Your task to perform on an android device: Open internet settings Image 0: 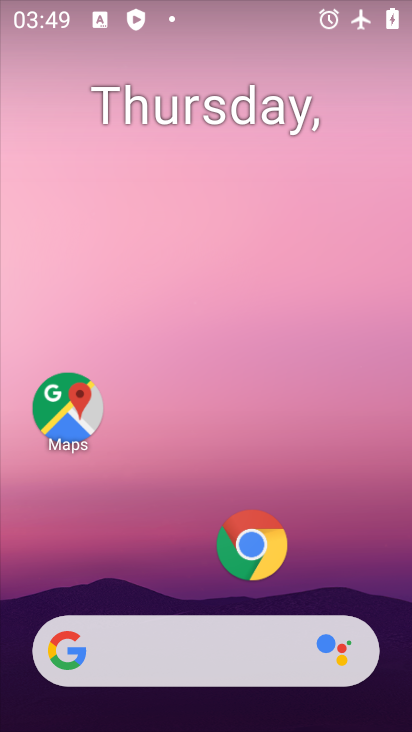
Step 0: drag from (228, 7) to (244, 638)
Your task to perform on an android device: Open internet settings Image 1: 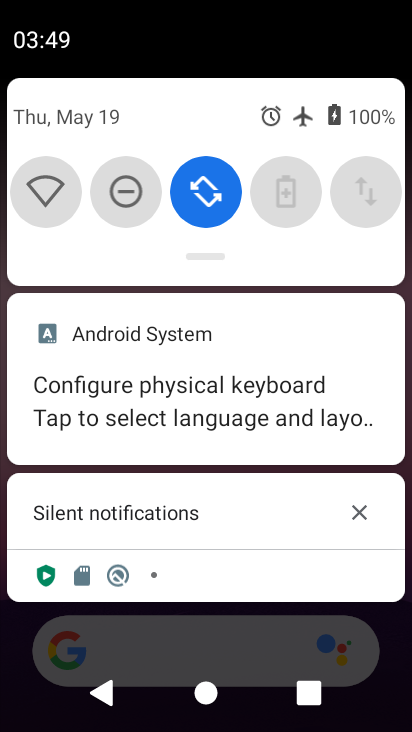
Step 1: drag from (307, 230) to (345, 575)
Your task to perform on an android device: Open internet settings Image 2: 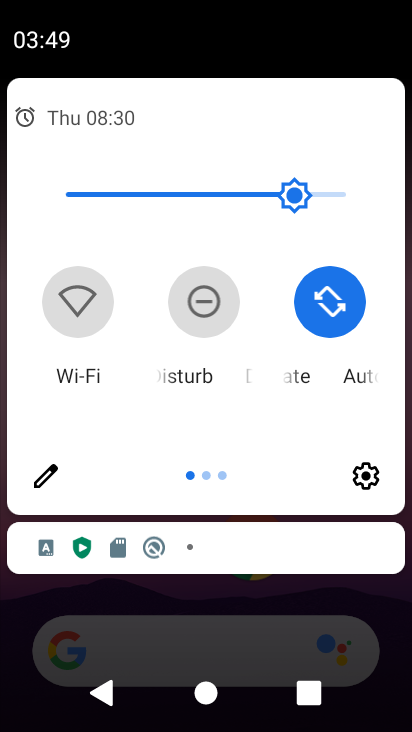
Step 2: drag from (365, 379) to (45, 402)
Your task to perform on an android device: Open internet settings Image 3: 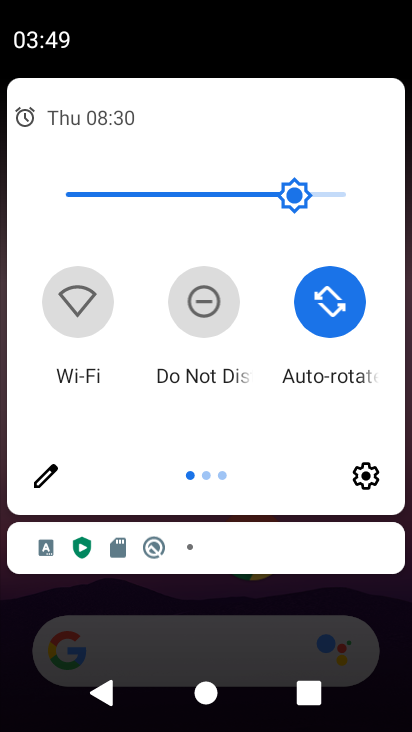
Step 3: drag from (311, 422) to (13, 438)
Your task to perform on an android device: Open internet settings Image 4: 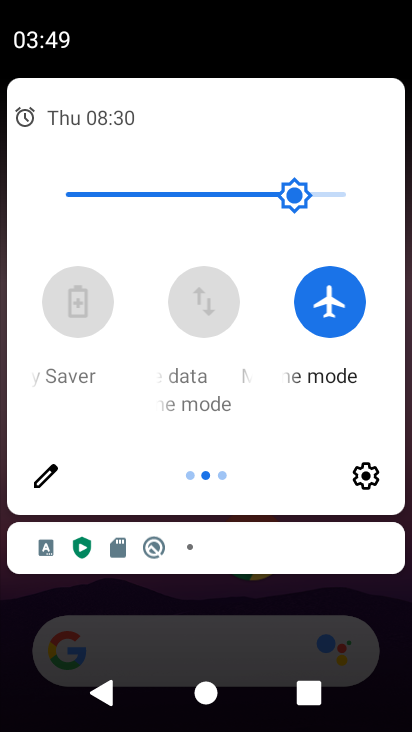
Step 4: click (332, 319)
Your task to perform on an android device: Open internet settings Image 5: 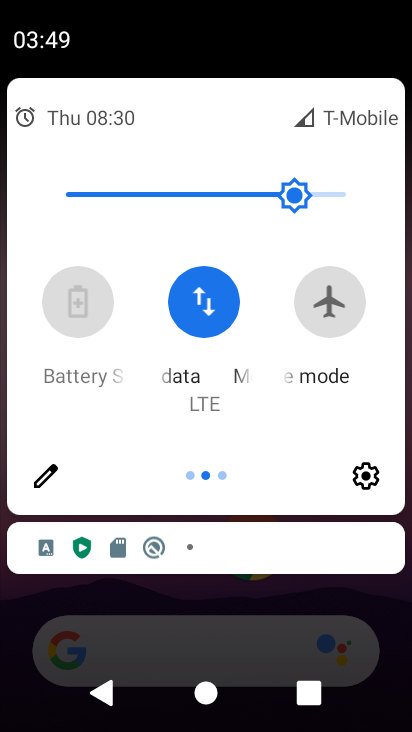
Step 5: drag from (309, 651) to (309, 68)
Your task to perform on an android device: Open internet settings Image 6: 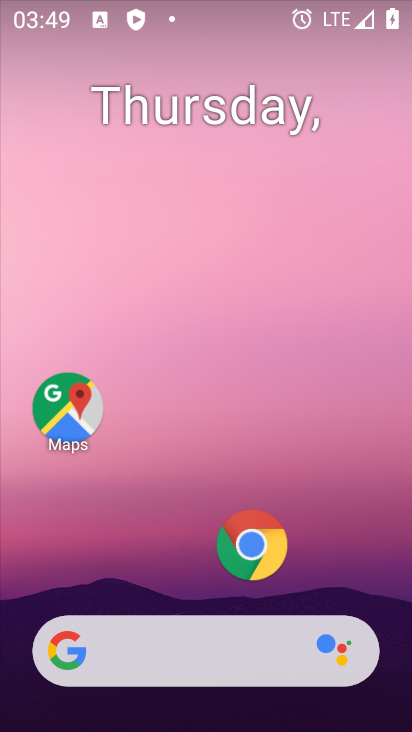
Step 6: drag from (326, 650) to (315, 13)
Your task to perform on an android device: Open internet settings Image 7: 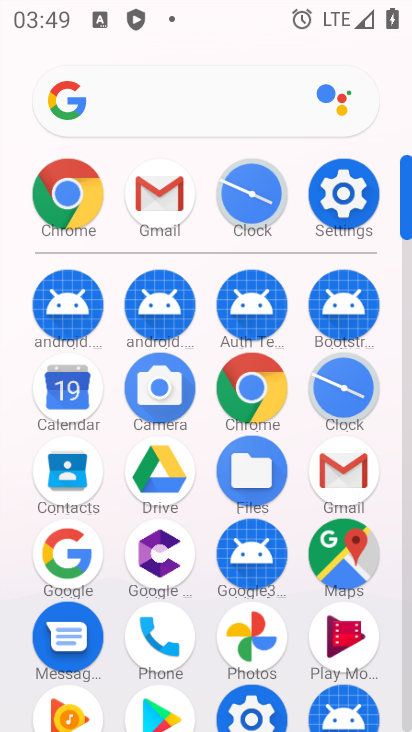
Step 7: click (331, 207)
Your task to perform on an android device: Open internet settings Image 8: 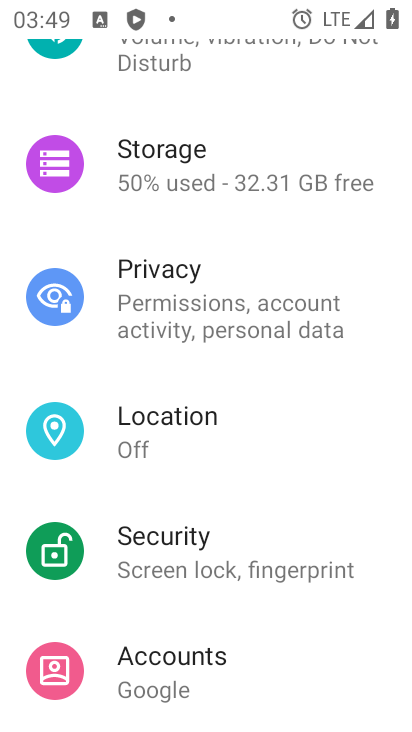
Step 8: drag from (271, 165) to (257, 730)
Your task to perform on an android device: Open internet settings Image 9: 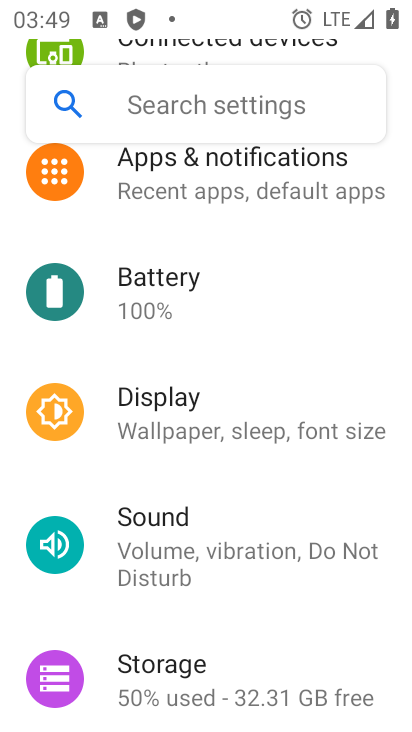
Step 9: drag from (308, 230) to (284, 723)
Your task to perform on an android device: Open internet settings Image 10: 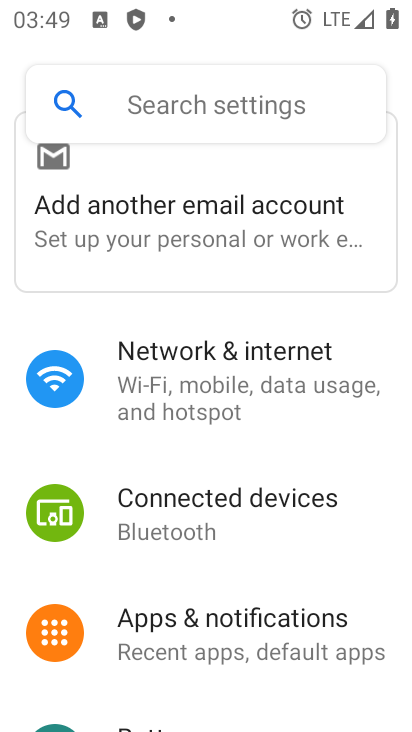
Step 10: drag from (364, 213) to (296, 671)
Your task to perform on an android device: Open internet settings Image 11: 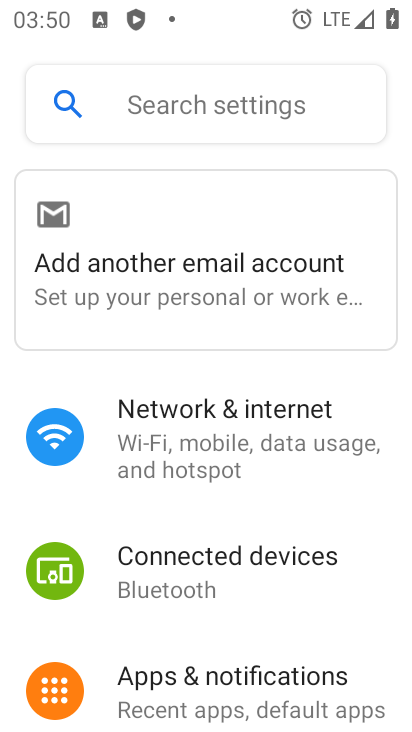
Step 11: click (267, 446)
Your task to perform on an android device: Open internet settings Image 12: 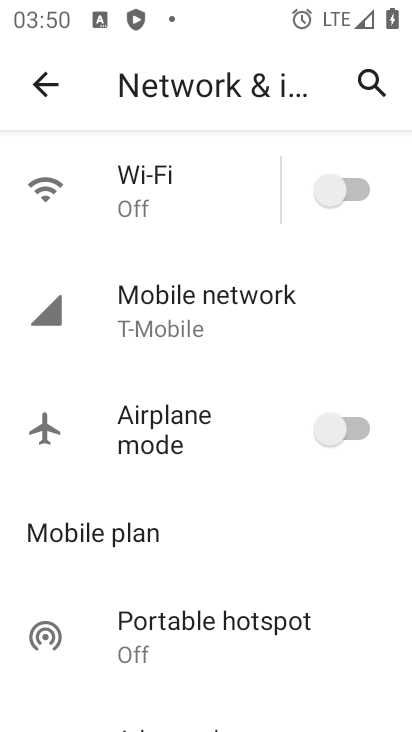
Step 12: task complete